Your task to perform on an android device: Find coffee shops on Maps Image 0: 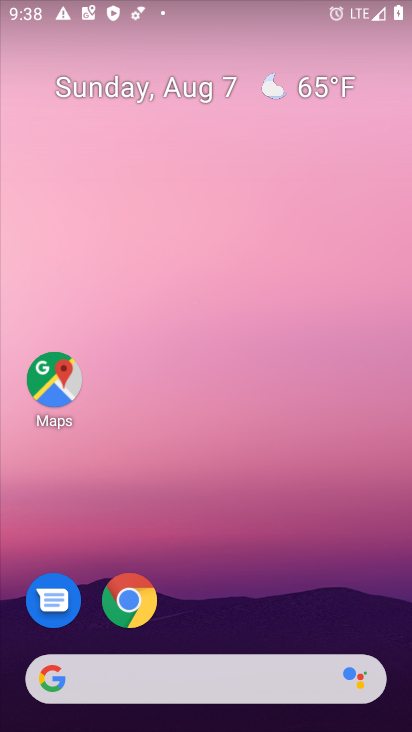
Step 0: click (52, 382)
Your task to perform on an android device: Find coffee shops on Maps Image 1: 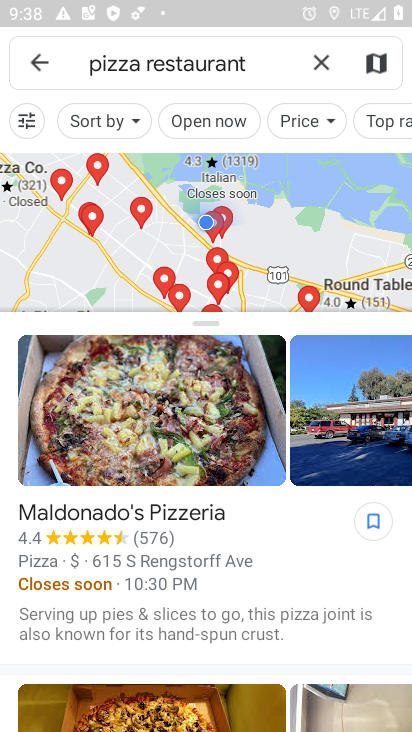
Step 1: click (319, 62)
Your task to perform on an android device: Find coffee shops on Maps Image 2: 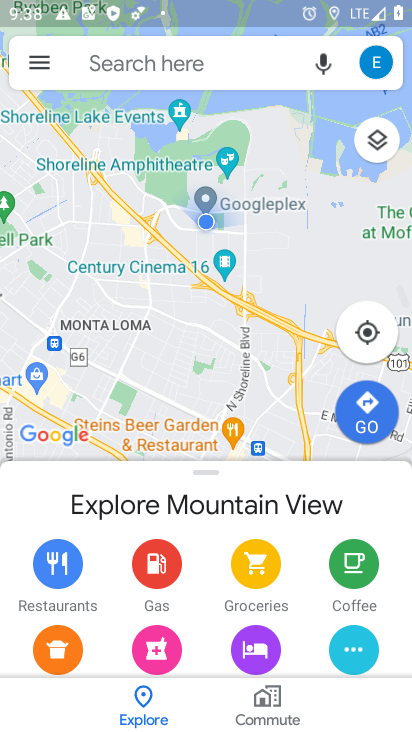
Step 2: click (167, 63)
Your task to perform on an android device: Find coffee shops on Maps Image 3: 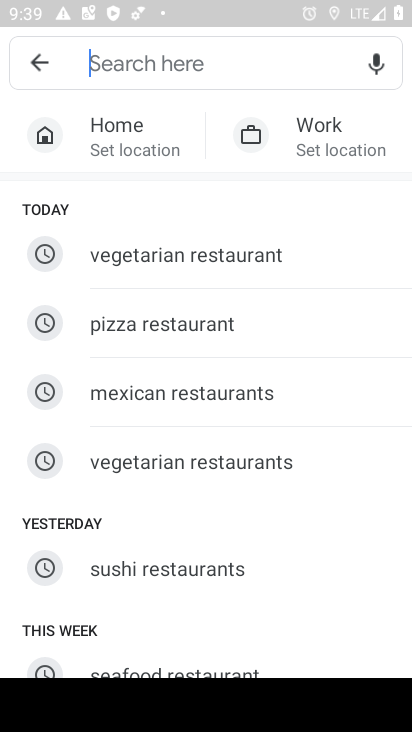
Step 3: type "coffee shops "
Your task to perform on an android device: Find coffee shops on Maps Image 4: 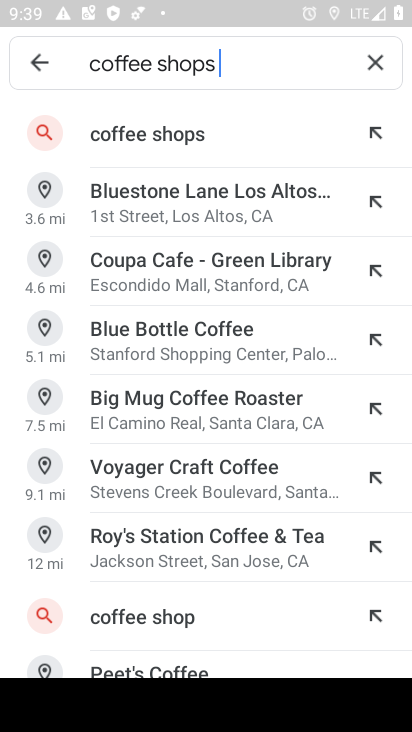
Step 4: click (199, 143)
Your task to perform on an android device: Find coffee shops on Maps Image 5: 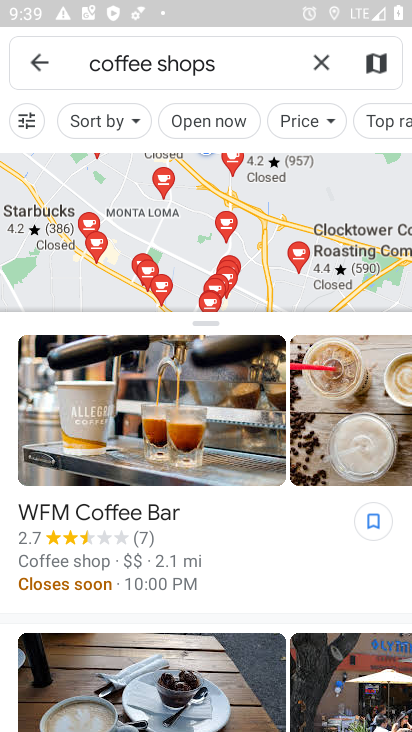
Step 5: task complete